Your task to perform on an android device: Go to Amazon Image 0: 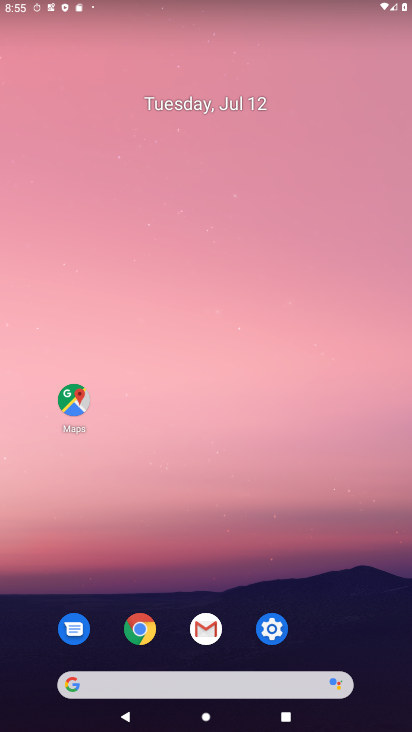
Step 0: click (140, 619)
Your task to perform on an android device: Go to Amazon Image 1: 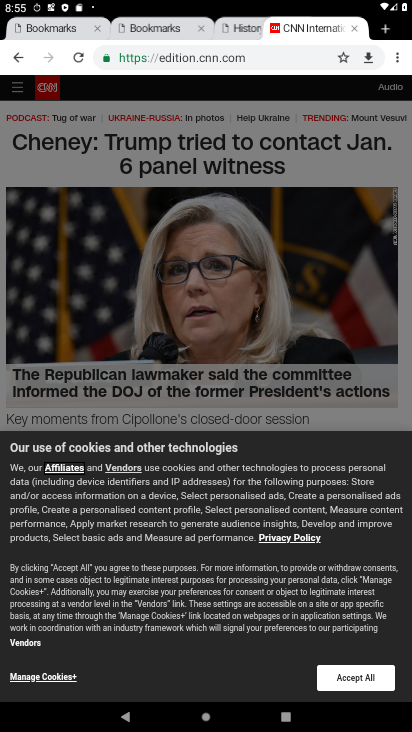
Step 1: click (395, 57)
Your task to perform on an android device: Go to Amazon Image 2: 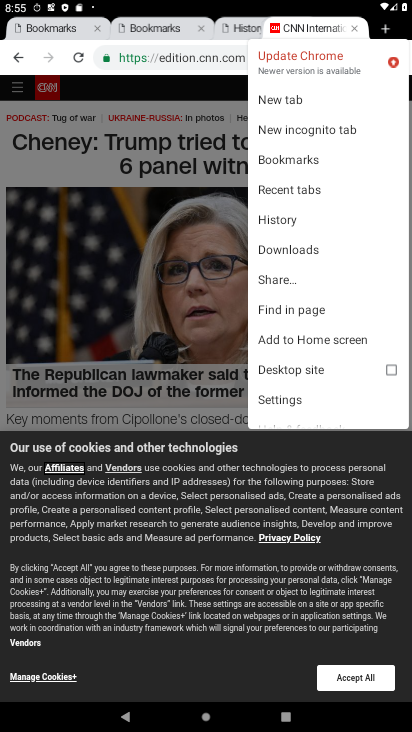
Step 2: click (287, 94)
Your task to perform on an android device: Go to Amazon Image 3: 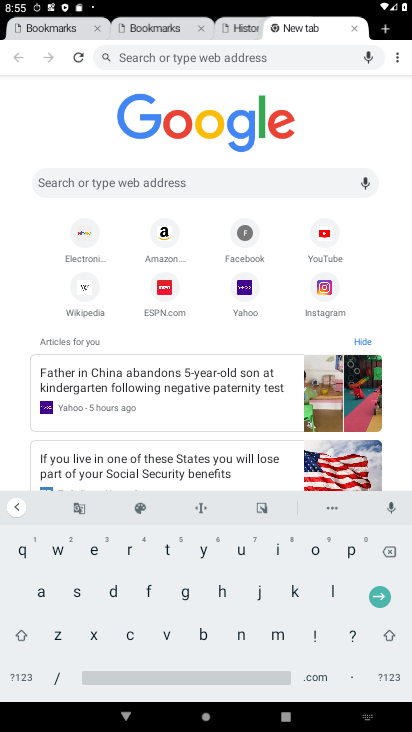
Step 3: click (161, 238)
Your task to perform on an android device: Go to Amazon Image 4: 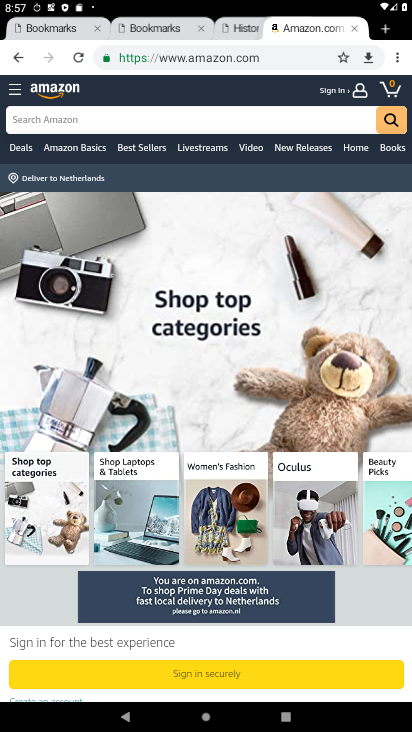
Step 4: task complete